Your task to perform on an android device: add a contact Image 0: 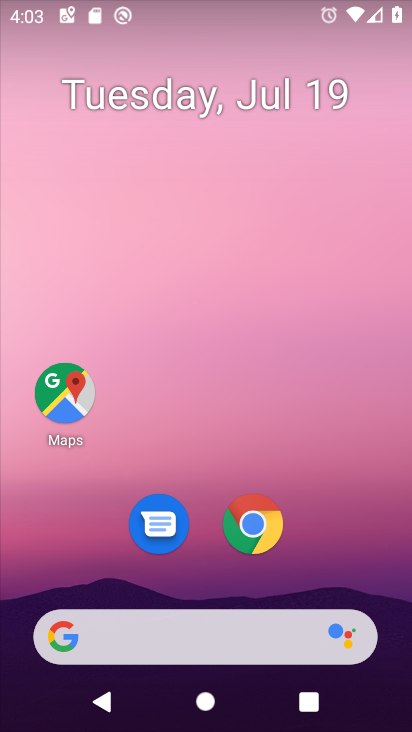
Step 0: drag from (308, 491) to (277, 29)
Your task to perform on an android device: add a contact Image 1: 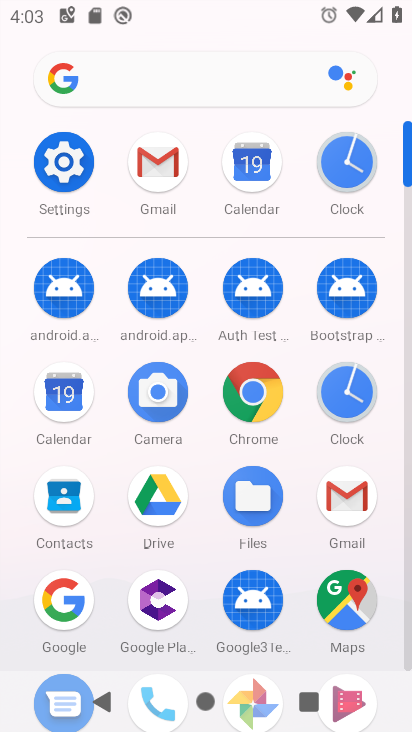
Step 1: click (57, 492)
Your task to perform on an android device: add a contact Image 2: 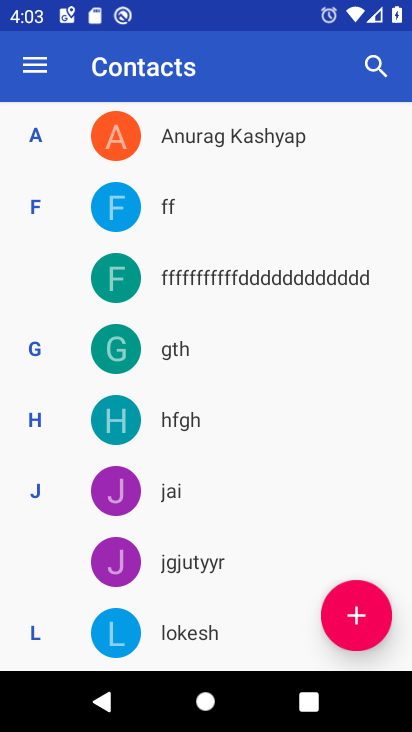
Step 2: click (349, 602)
Your task to perform on an android device: add a contact Image 3: 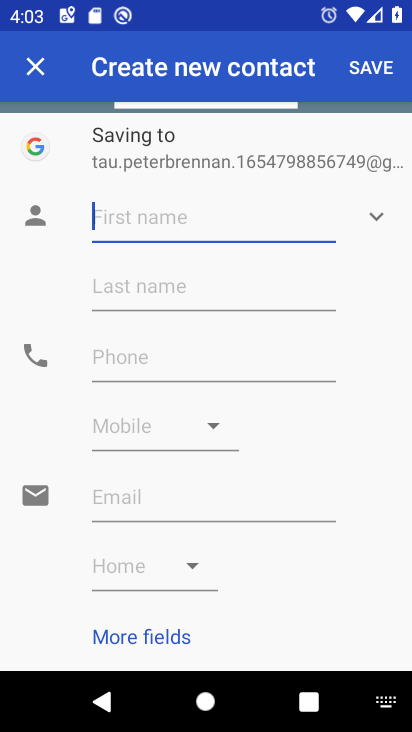
Step 3: type "Shiva Shankar"
Your task to perform on an android device: add a contact Image 4: 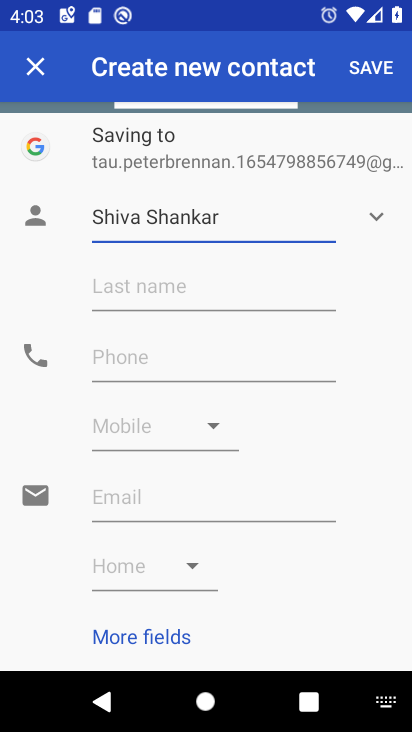
Step 4: click (260, 367)
Your task to perform on an android device: add a contact Image 5: 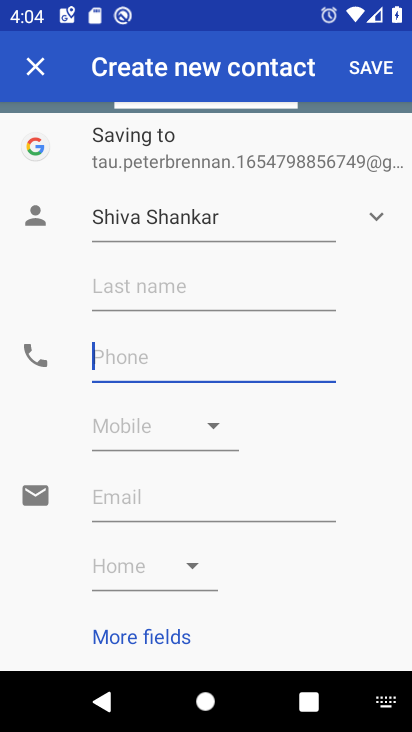
Step 5: type "9199911111111"
Your task to perform on an android device: add a contact Image 6: 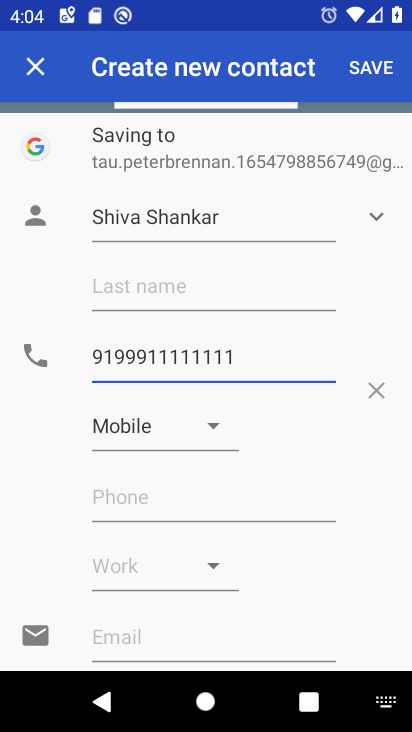
Step 6: click (370, 69)
Your task to perform on an android device: add a contact Image 7: 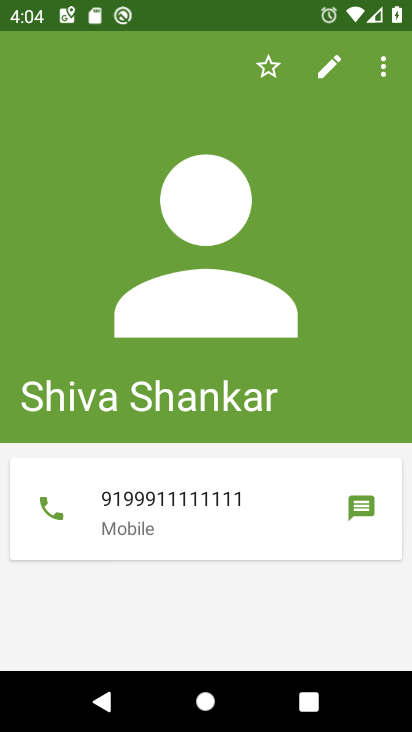
Step 7: task complete